Your task to perform on an android device: Go to wifi settings Image 0: 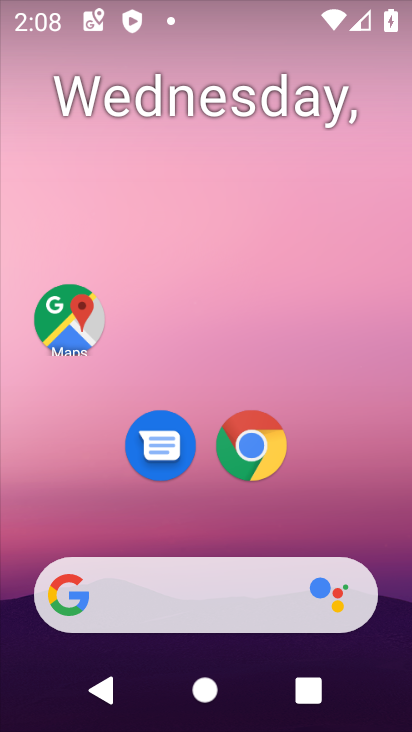
Step 0: drag from (188, 450) to (203, 151)
Your task to perform on an android device: Go to wifi settings Image 1: 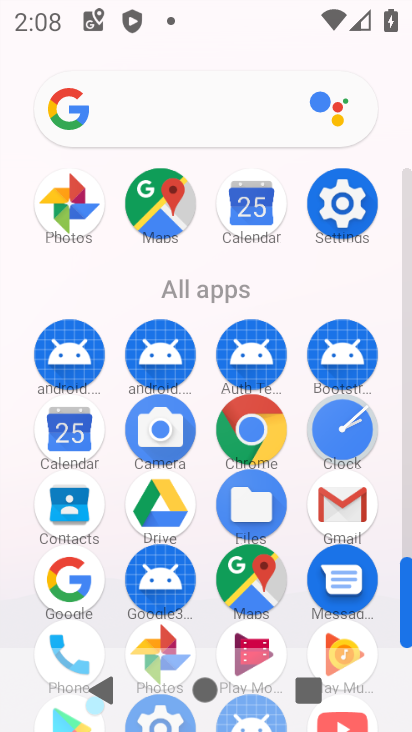
Step 1: click (329, 214)
Your task to perform on an android device: Go to wifi settings Image 2: 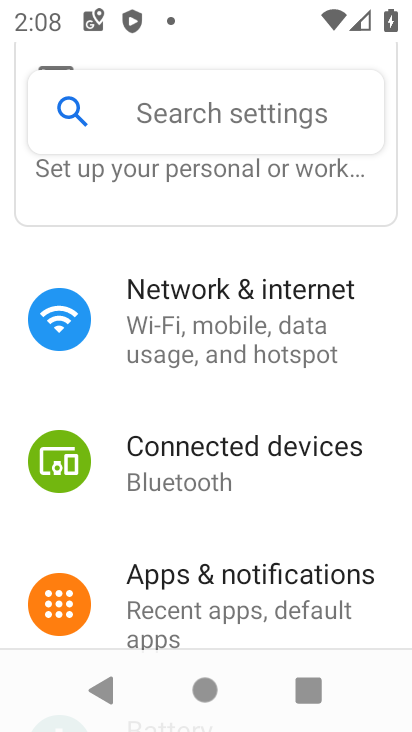
Step 2: drag from (269, 226) to (293, 468)
Your task to perform on an android device: Go to wifi settings Image 3: 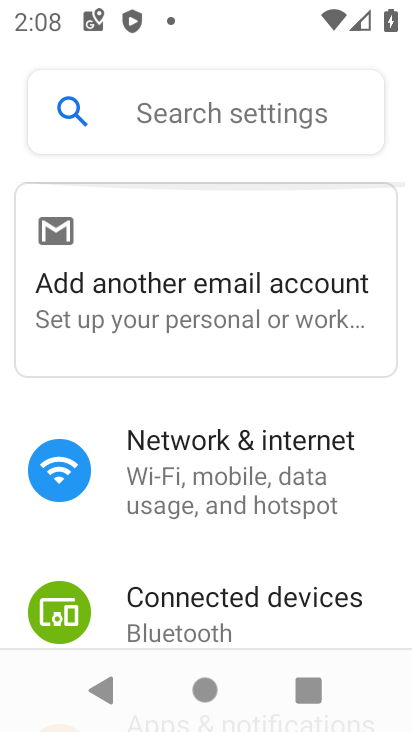
Step 3: click (220, 438)
Your task to perform on an android device: Go to wifi settings Image 4: 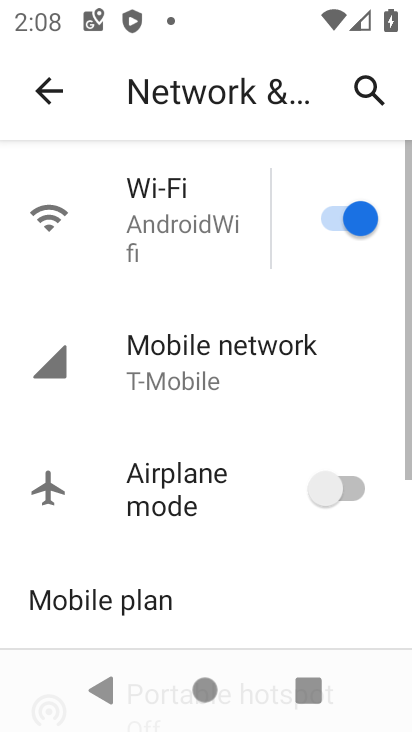
Step 4: click (155, 241)
Your task to perform on an android device: Go to wifi settings Image 5: 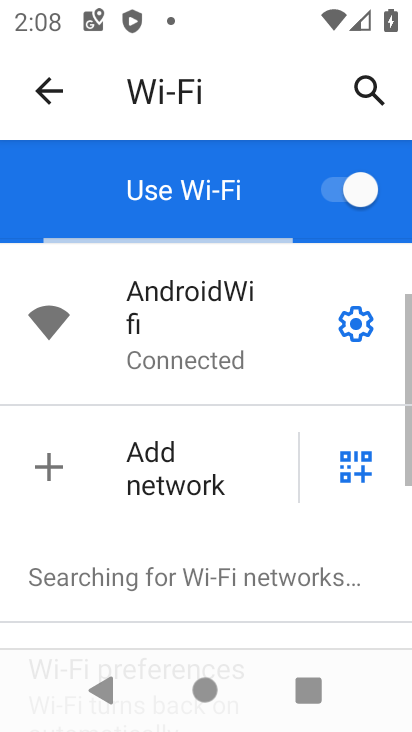
Step 5: task complete